Your task to perform on an android device: delete browsing data in the chrome app Image 0: 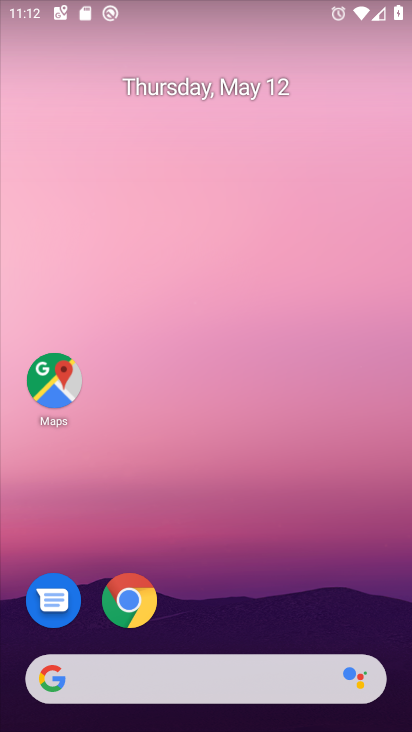
Step 0: click (145, 613)
Your task to perform on an android device: delete browsing data in the chrome app Image 1: 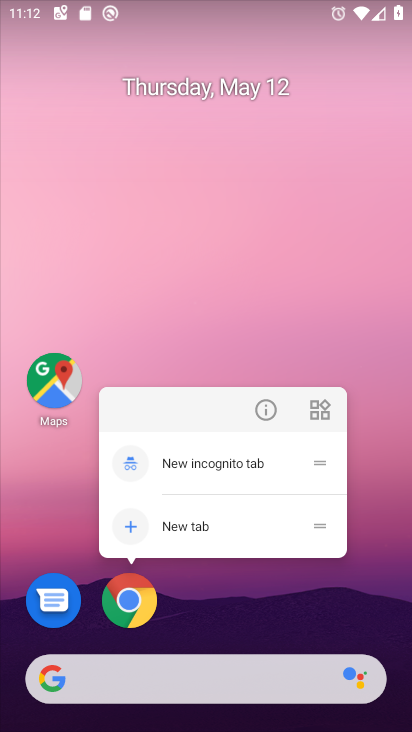
Step 1: click (131, 609)
Your task to perform on an android device: delete browsing data in the chrome app Image 2: 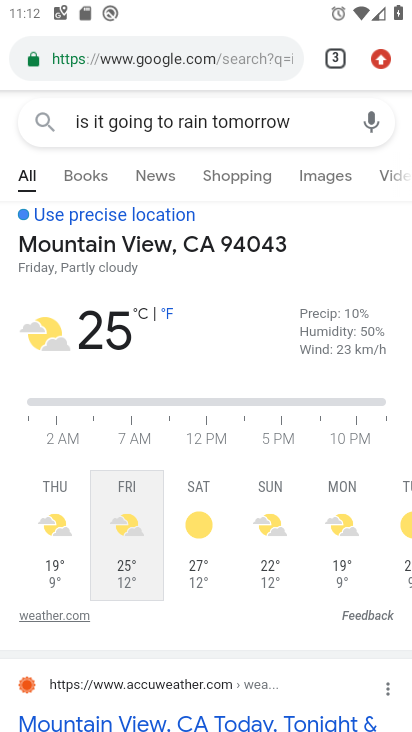
Step 2: click (380, 60)
Your task to perform on an android device: delete browsing data in the chrome app Image 3: 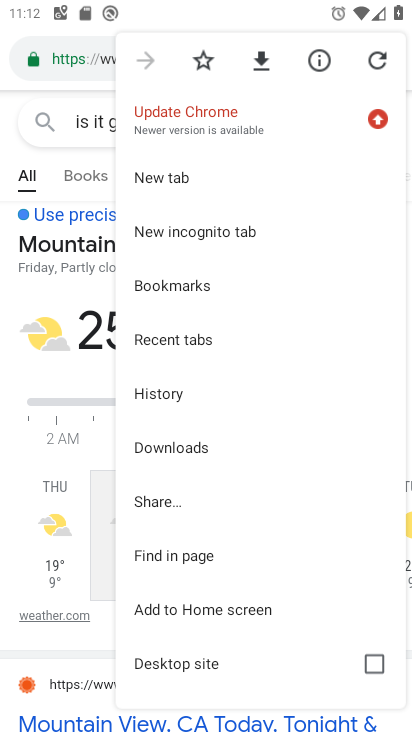
Step 3: click (162, 398)
Your task to perform on an android device: delete browsing data in the chrome app Image 4: 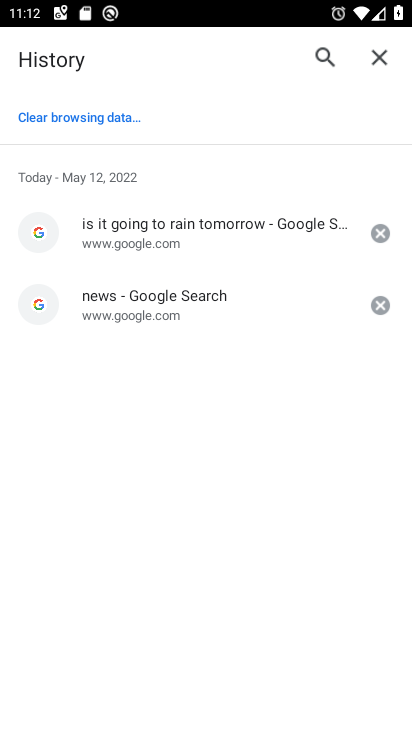
Step 4: click (83, 122)
Your task to perform on an android device: delete browsing data in the chrome app Image 5: 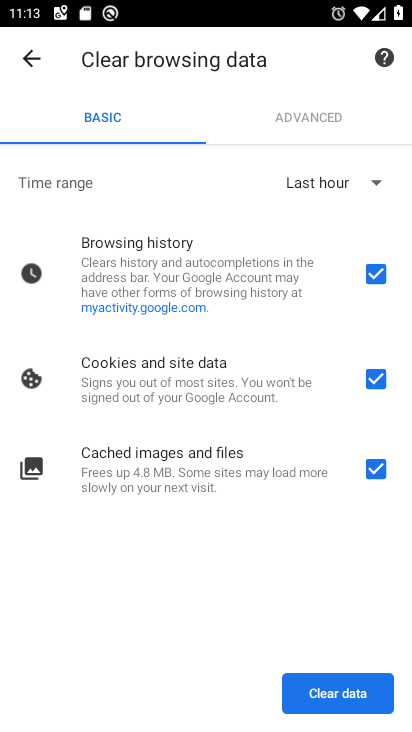
Step 5: click (336, 695)
Your task to perform on an android device: delete browsing data in the chrome app Image 6: 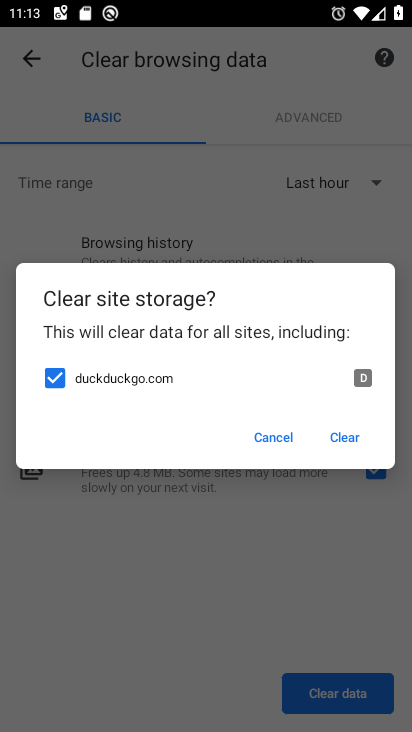
Step 6: click (347, 444)
Your task to perform on an android device: delete browsing data in the chrome app Image 7: 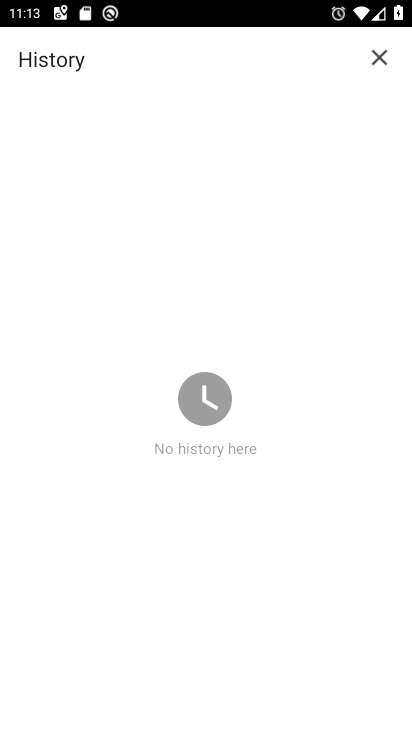
Step 7: task complete